Your task to perform on an android device: Go to ESPN.com Image 0: 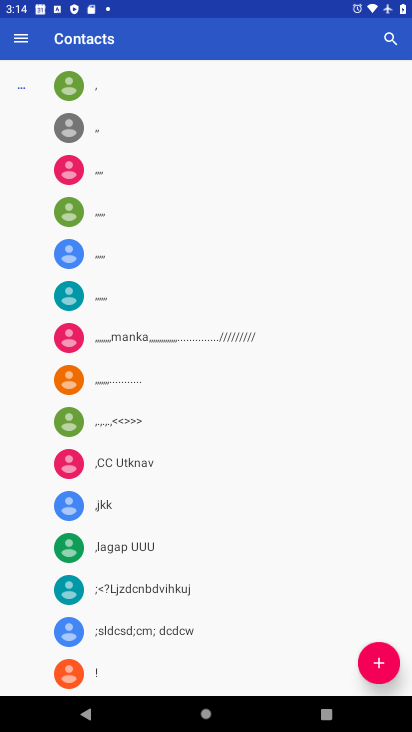
Step 0: press home button
Your task to perform on an android device: Go to ESPN.com Image 1: 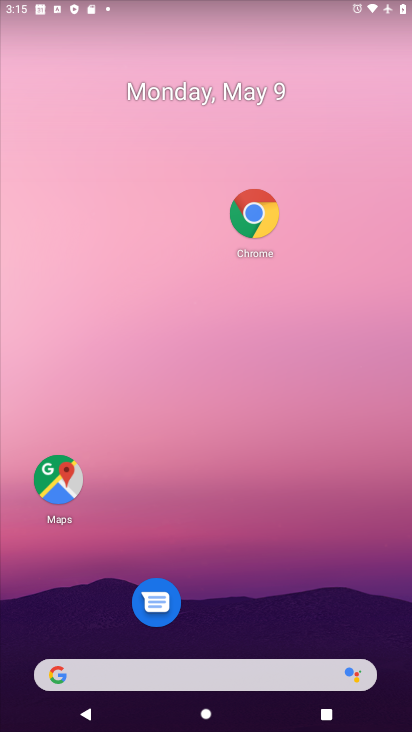
Step 1: drag from (335, 608) to (294, 148)
Your task to perform on an android device: Go to ESPN.com Image 2: 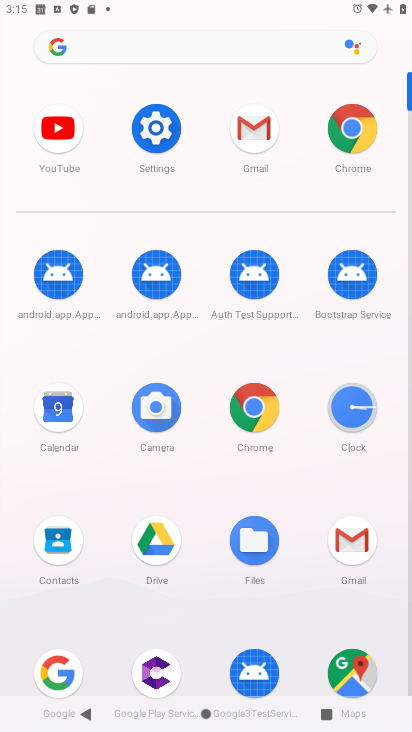
Step 2: click (352, 139)
Your task to perform on an android device: Go to ESPN.com Image 3: 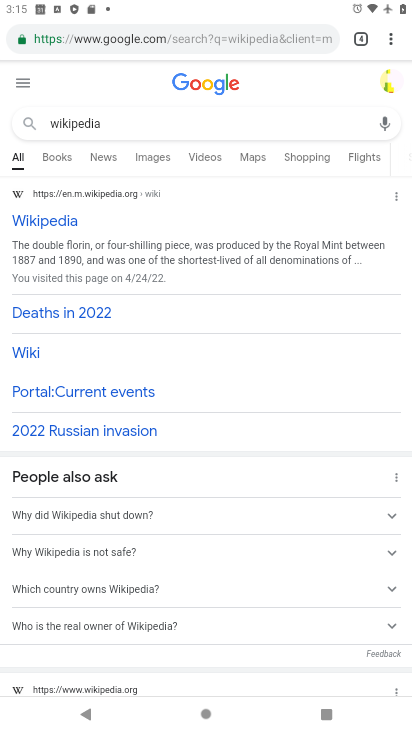
Step 3: click (355, 40)
Your task to perform on an android device: Go to ESPN.com Image 4: 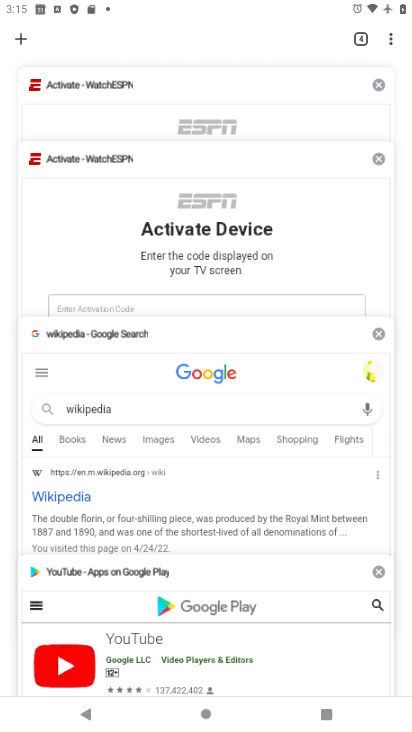
Step 4: click (33, 36)
Your task to perform on an android device: Go to ESPN.com Image 5: 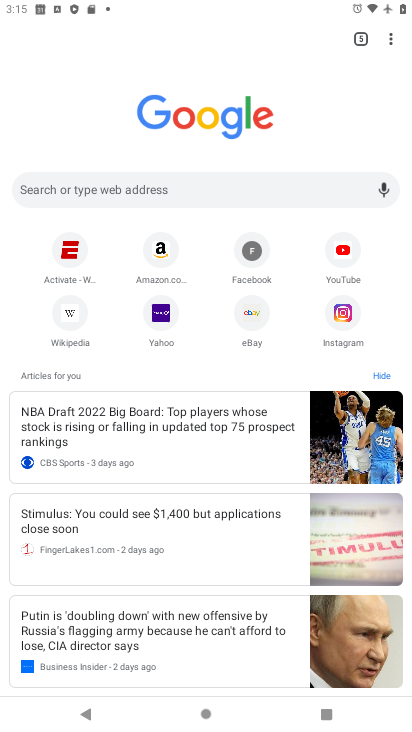
Step 5: click (82, 251)
Your task to perform on an android device: Go to ESPN.com Image 6: 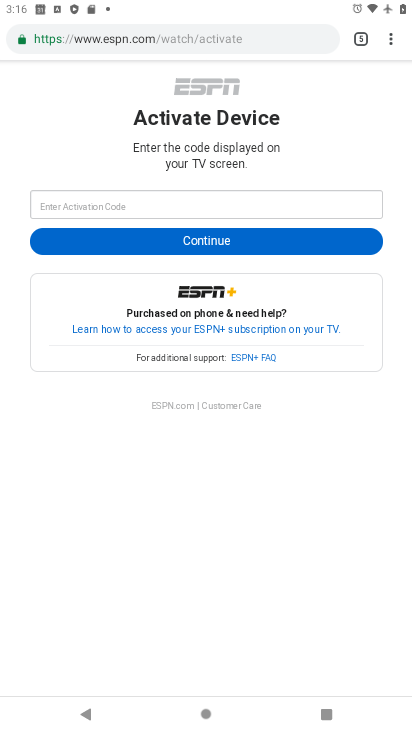
Step 6: task complete